Your task to perform on an android device: Open Google Chrome and open the bookmarks view Image 0: 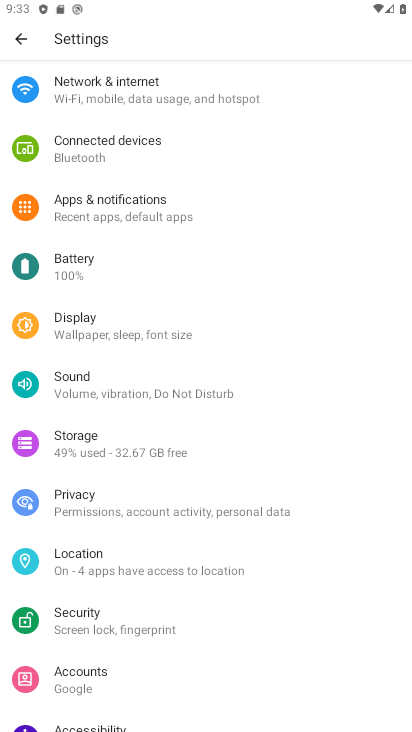
Step 0: press home button
Your task to perform on an android device: Open Google Chrome and open the bookmarks view Image 1: 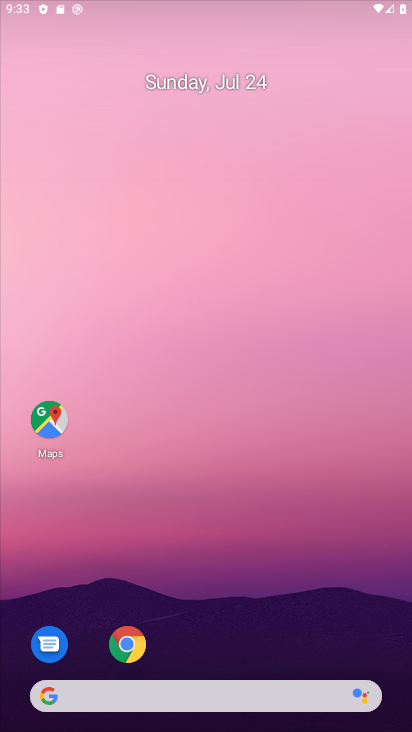
Step 1: drag from (285, 580) to (337, 2)
Your task to perform on an android device: Open Google Chrome and open the bookmarks view Image 2: 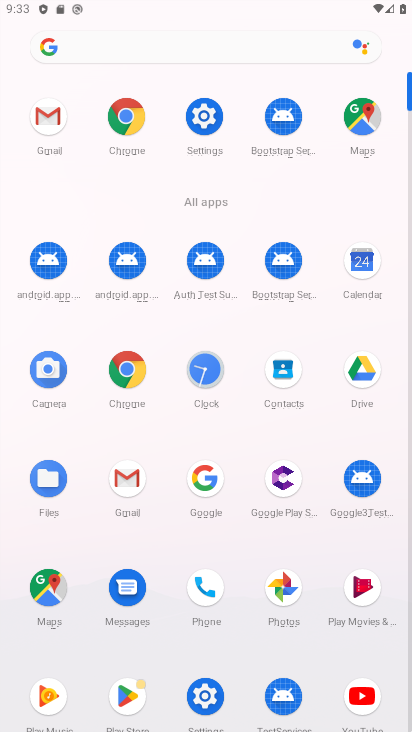
Step 2: click (127, 119)
Your task to perform on an android device: Open Google Chrome and open the bookmarks view Image 3: 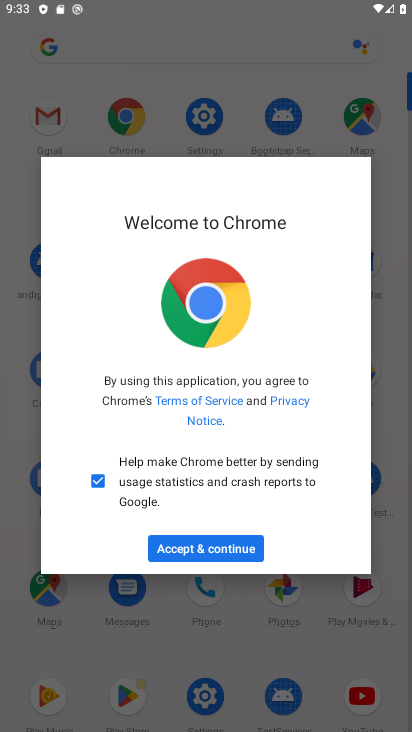
Step 3: click (216, 550)
Your task to perform on an android device: Open Google Chrome and open the bookmarks view Image 4: 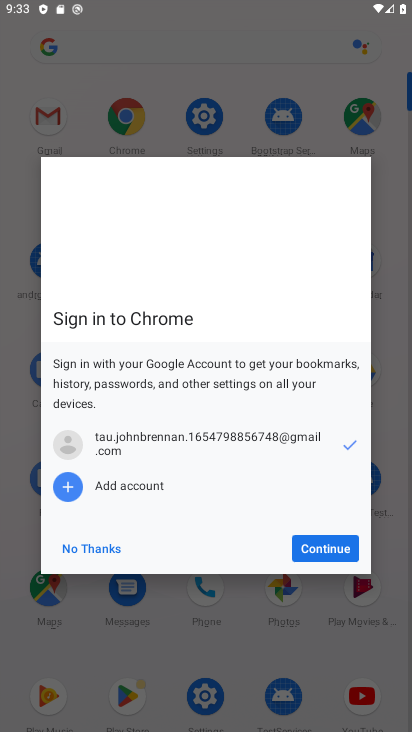
Step 4: click (118, 553)
Your task to perform on an android device: Open Google Chrome and open the bookmarks view Image 5: 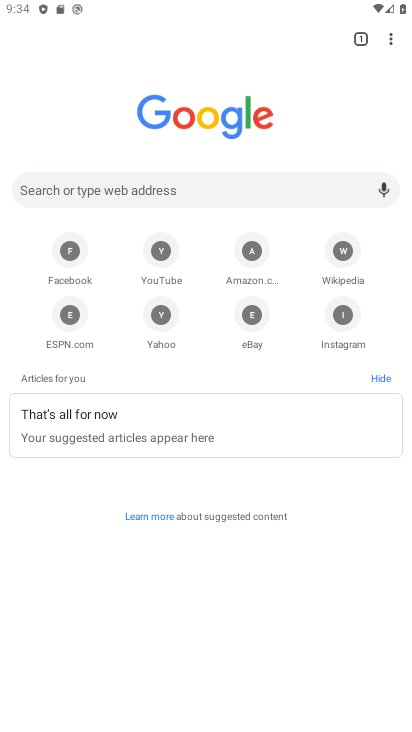
Step 5: drag from (397, 40) to (282, 155)
Your task to perform on an android device: Open Google Chrome and open the bookmarks view Image 6: 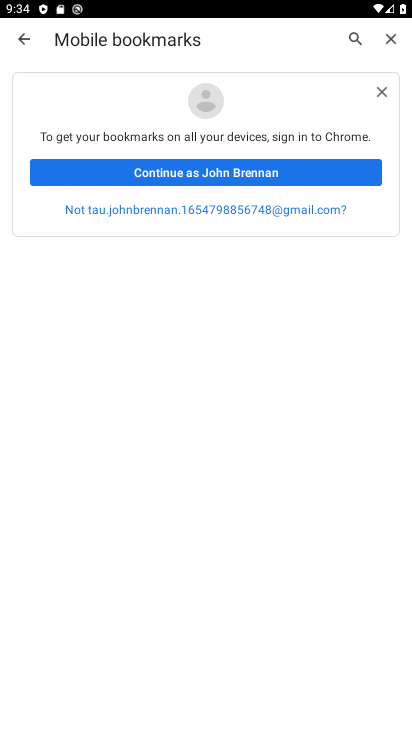
Step 6: click (256, 164)
Your task to perform on an android device: Open Google Chrome and open the bookmarks view Image 7: 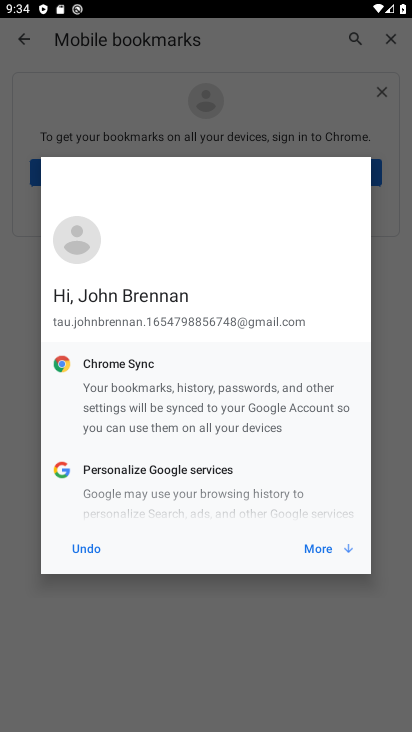
Step 7: click (315, 542)
Your task to perform on an android device: Open Google Chrome and open the bookmarks view Image 8: 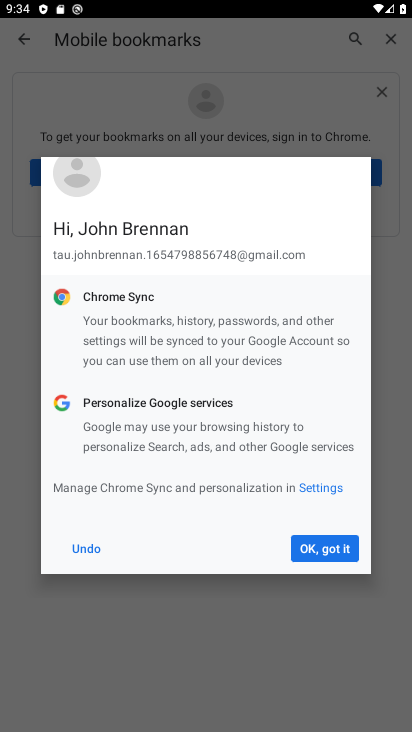
Step 8: click (321, 543)
Your task to perform on an android device: Open Google Chrome and open the bookmarks view Image 9: 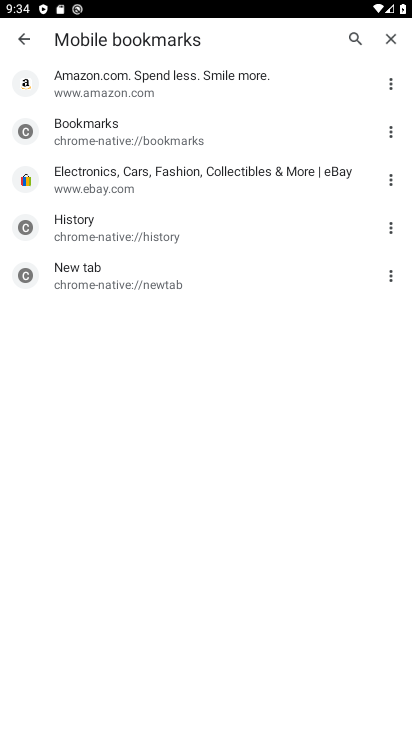
Step 9: task complete